Your task to perform on an android device: change your default location settings in chrome Image 0: 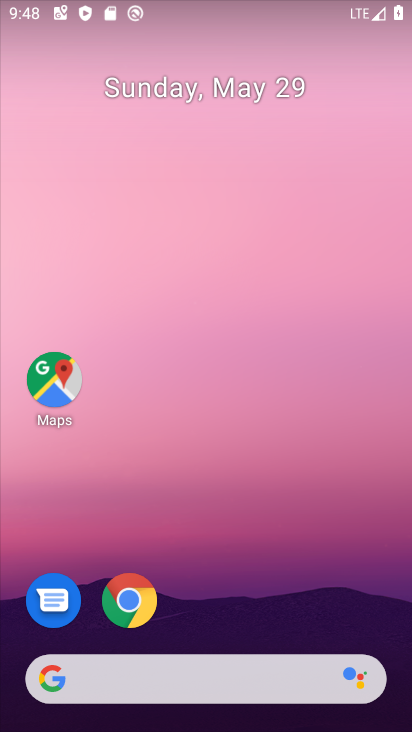
Step 0: drag from (270, 590) to (267, 106)
Your task to perform on an android device: change your default location settings in chrome Image 1: 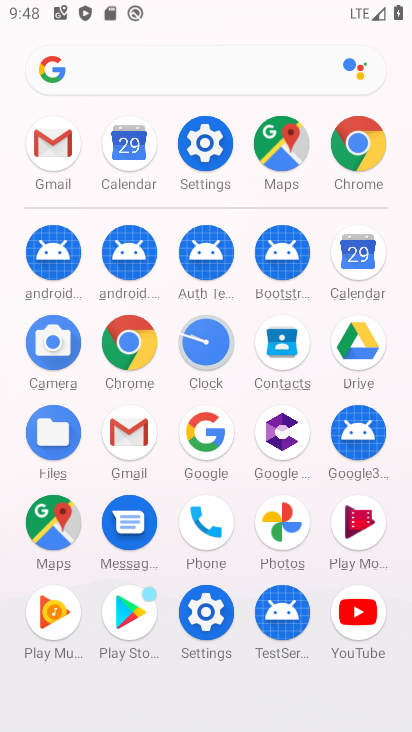
Step 1: click (126, 347)
Your task to perform on an android device: change your default location settings in chrome Image 2: 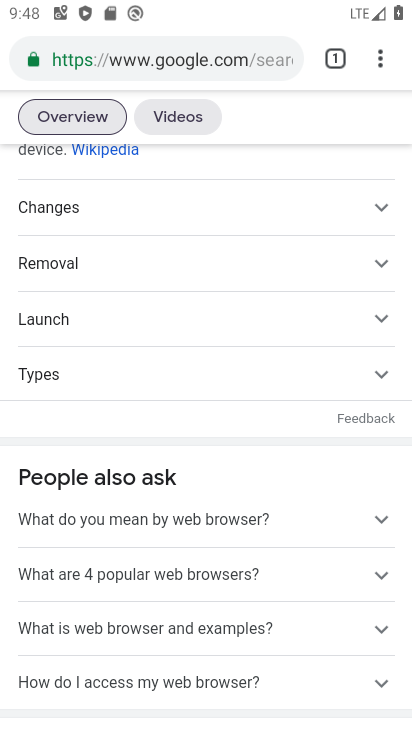
Step 2: drag from (379, 65) to (166, 632)
Your task to perform on an android device: change your default location settings in chrome Image 3: 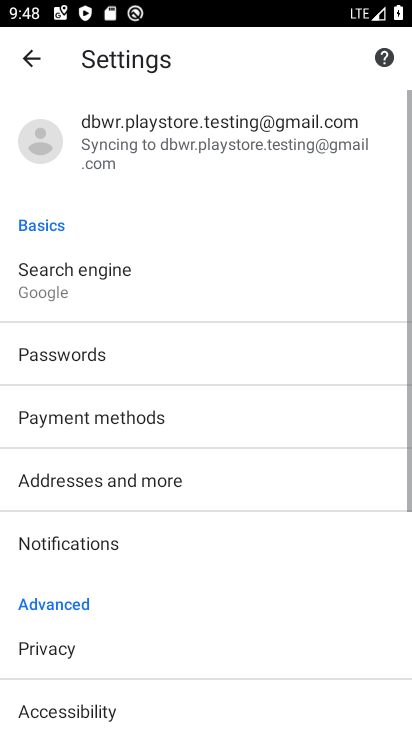
Step 3: drag from (166, 631) to (221, 148)
Your task to perform on an android device: change your default location settings in chrome Image 4: 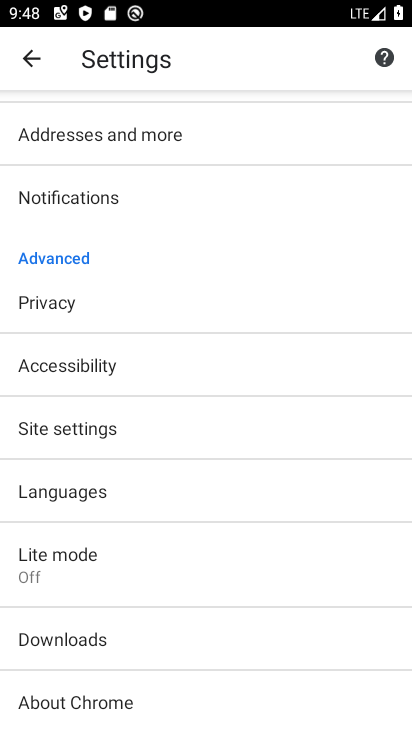
Step 4: click (56, 438)
Your task to perform on an android device: change your default location settings in chrome Image 5: 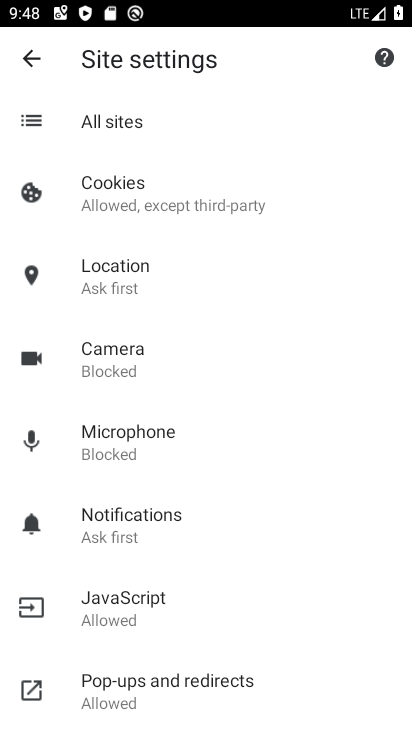
Step 5: click (116, 274)
Your task to perform on an android device: change your default location settings in chrome Image 6: 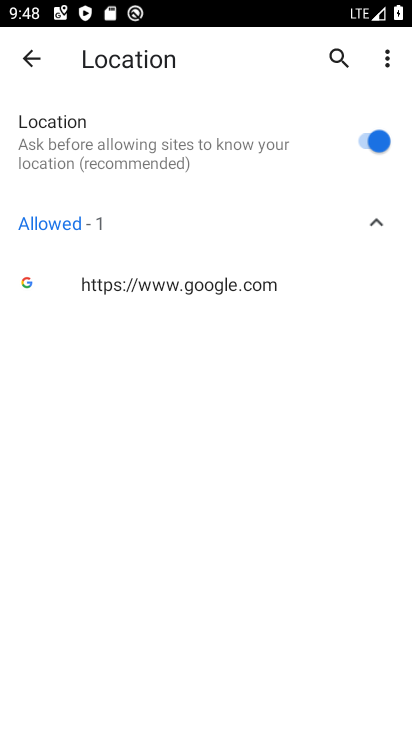
Step 6: task complete